Your task to perform on an android device: Go to internet settings Image 0: 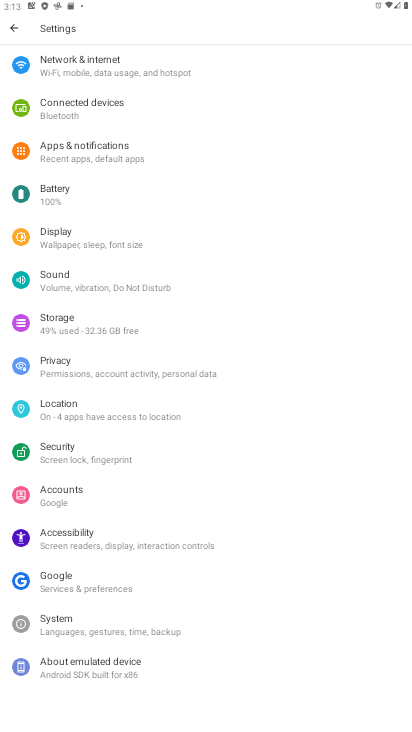
Step 0: click (107, 76)
Your task to perform on an android device: Go to internet settings Image 1: 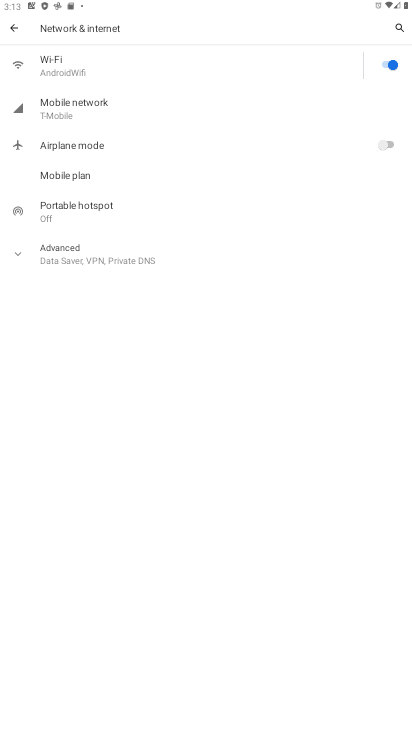
Step 1: click (20, 245)
Your task to perform on an android device: Go to internet settings Image 2: 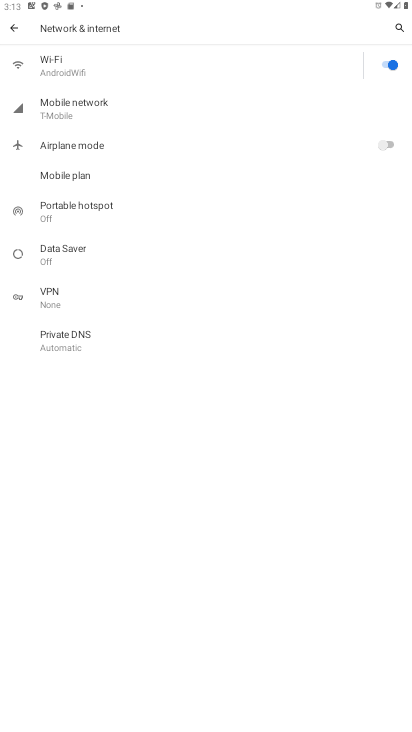
Step 2: task complete